Your task to perform on an android device: Open accessibility settings Image 0: 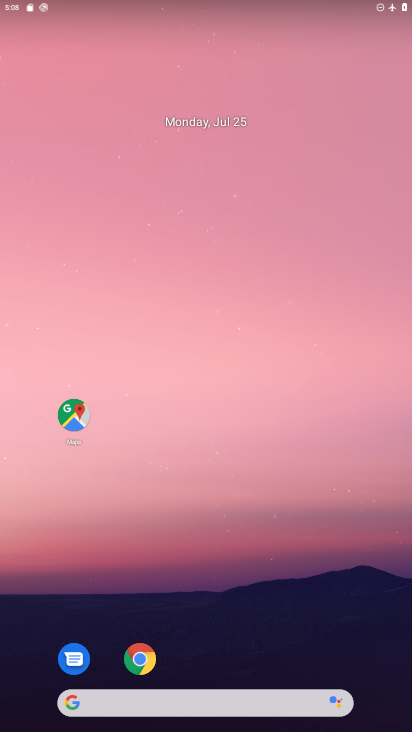
Step 0: drag from (342, 631) to (343, 2)
Your task to perform on an android device: Open accessibility settings Image 1: 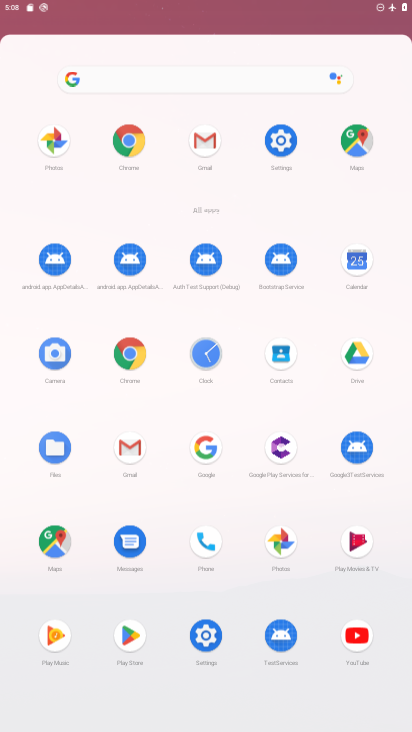
Step 1: click (266, 140)
Your task to perform on an android device: Open accessibility settings Image 2: 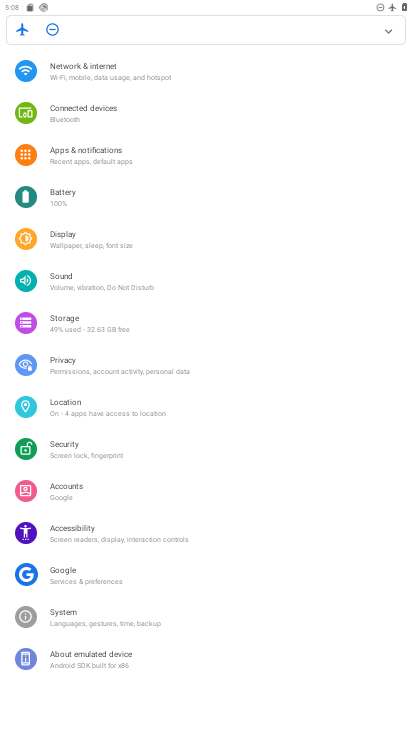
Step 2: click (172, 524)
Your task to perform on an android device: Open accessibility settings Image 3: 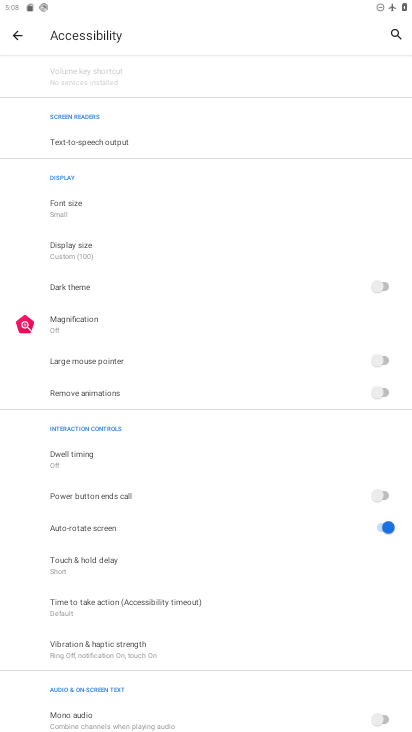
Step 3: task complete